Your task to perform on an android device: toggle improve location accuracy Image 0: 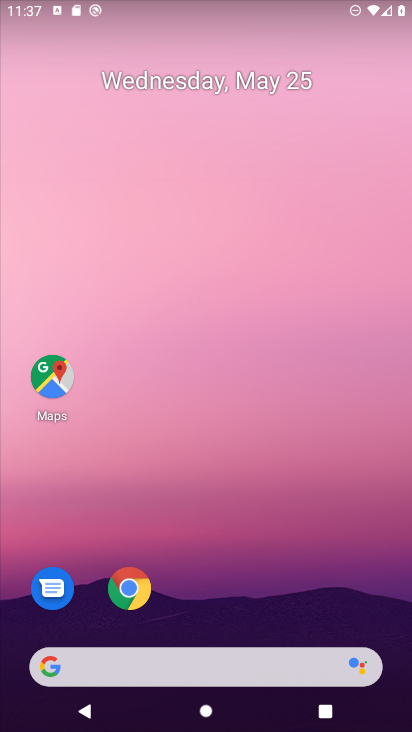
Step 0: drag from (21, 660) to (244, 175)
Your task to perform on an android device: toggle improve location accuracy Image 1: 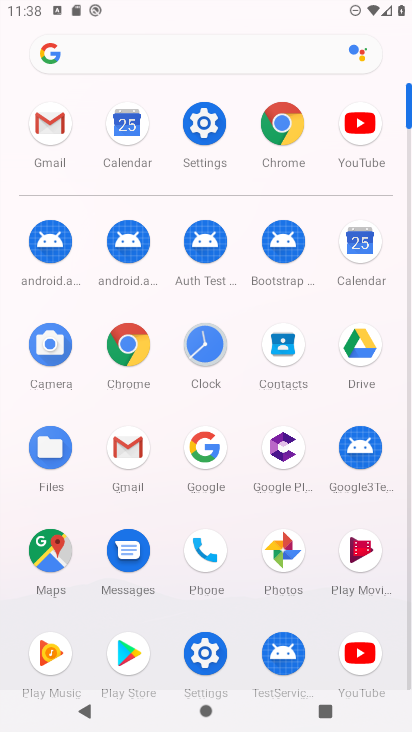
Step 1: click (206, 116)
Your task to perform on an android device: toggle improve location accuracy Image 2: 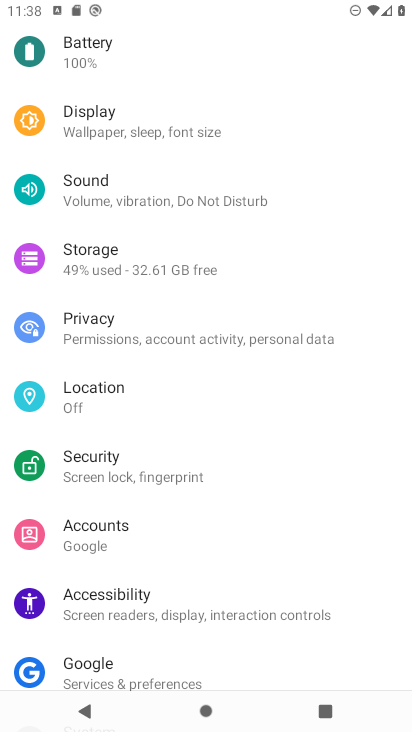
Step 2: click (82, 395)
Your task to perform on an android device: toggle improve location accuracy Image 3: 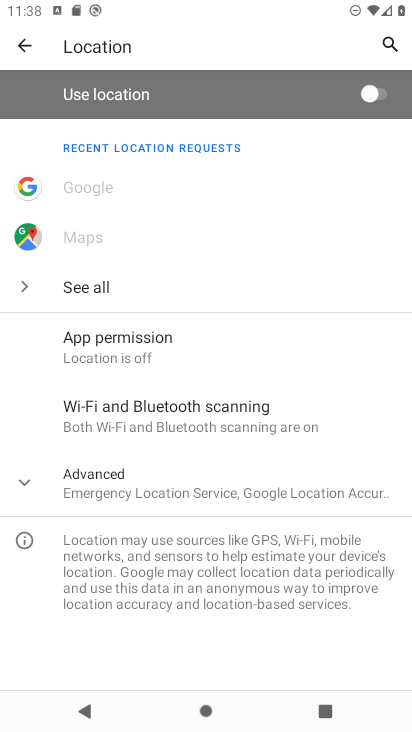
Step 3: click (159, 476)
Your task to perform on an android device: toggle improve location accuracy Image 4: 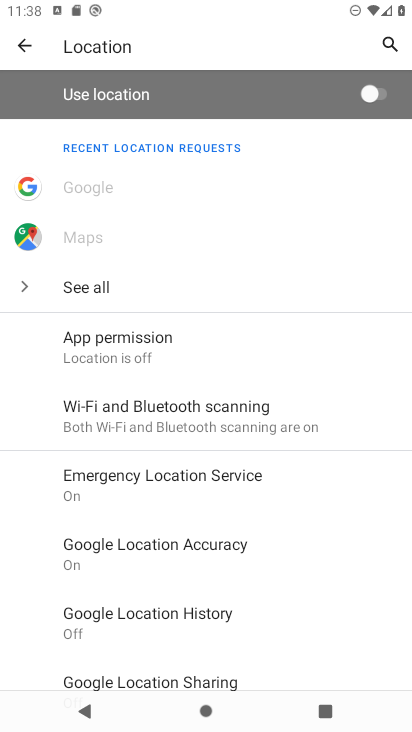
Step 4: click (169, 537)
Your task to perform on an android device: toggle improve location accuracy Image 5: 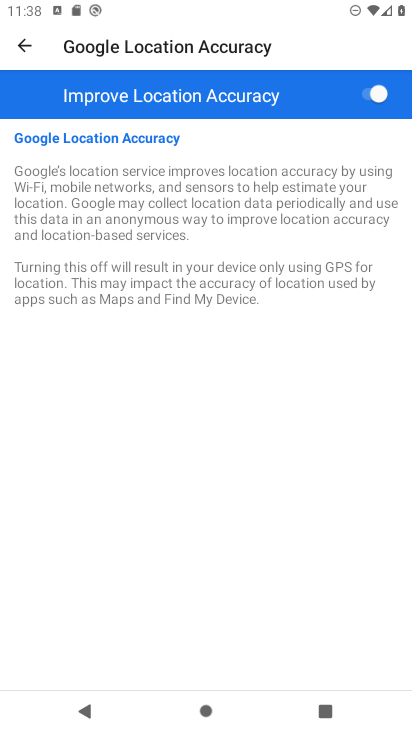
Step 5: click (382, 86)
Your task to perform on an android device: toggle improve location accuracy Image 6: 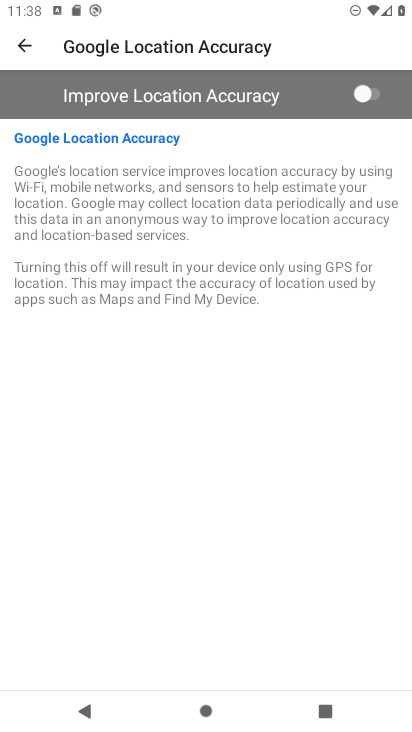
Step 6: task complete